Your task to perform on an android device: make emails show in primary in the gmail app Image 0: 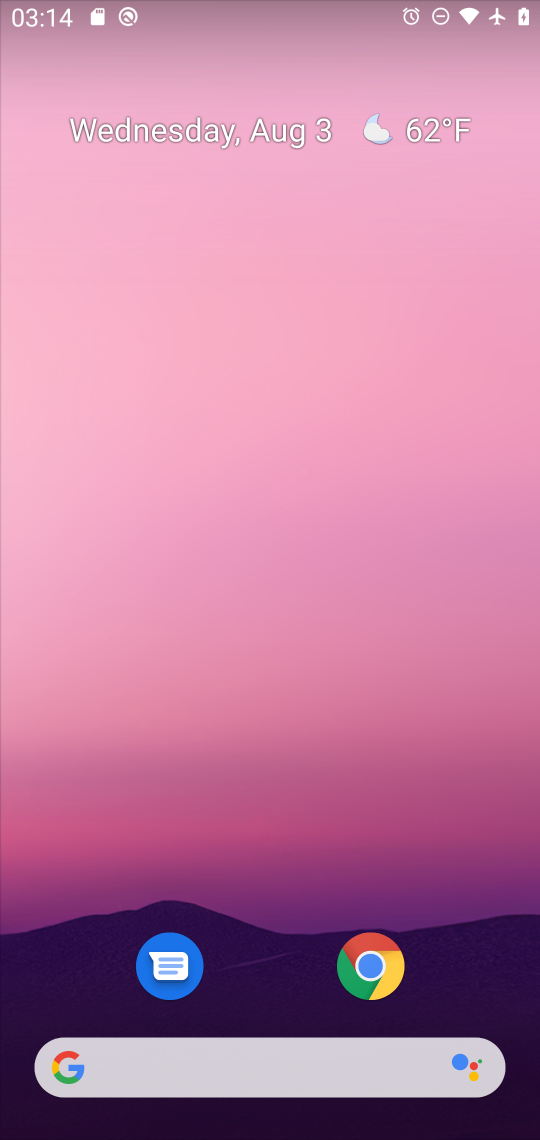
Step 0: drag from (265, 980) to (262, 322)
Your task to perform on an android device: make emails show in primary in the gmail app Image 1: 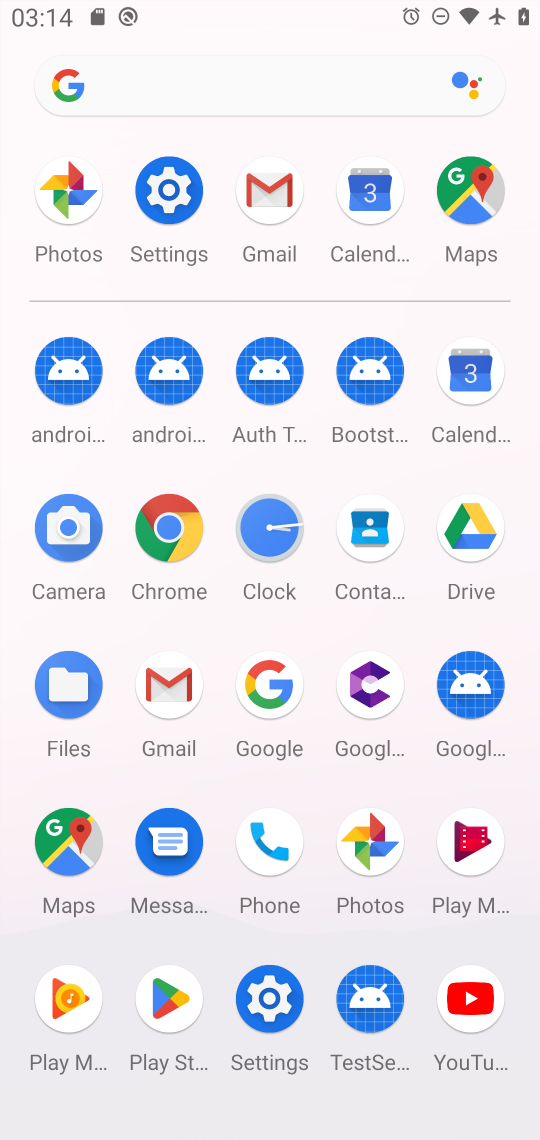
Step 1: click (263, 210)
Your task to perform on an android device: make emails show in primary in the gmail app Image 2: 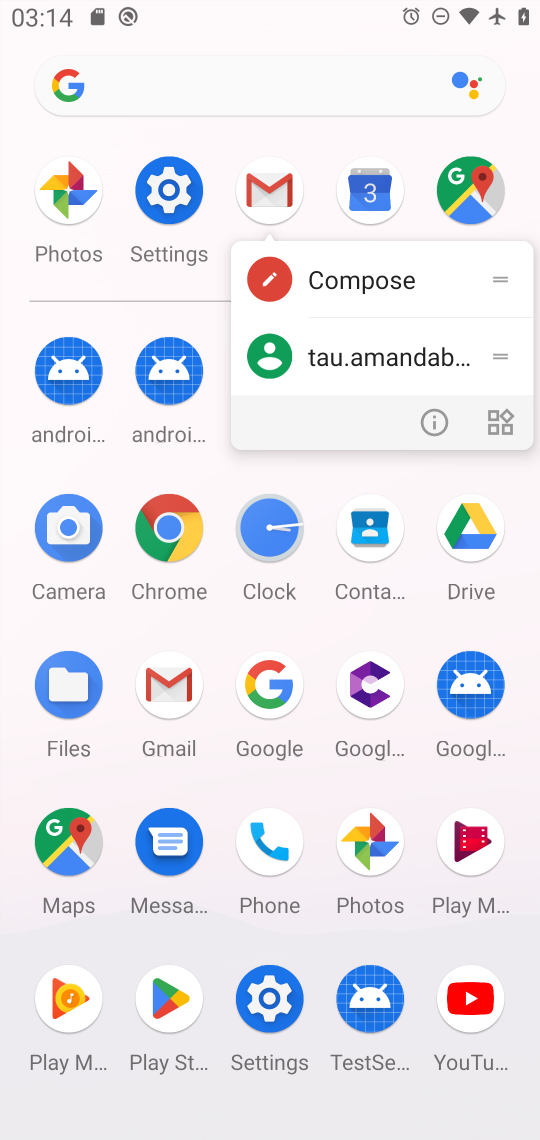
Step 2: click (269, 183)
Your task to perform on an android device: make emails show in primary in the gmail app Image 3: 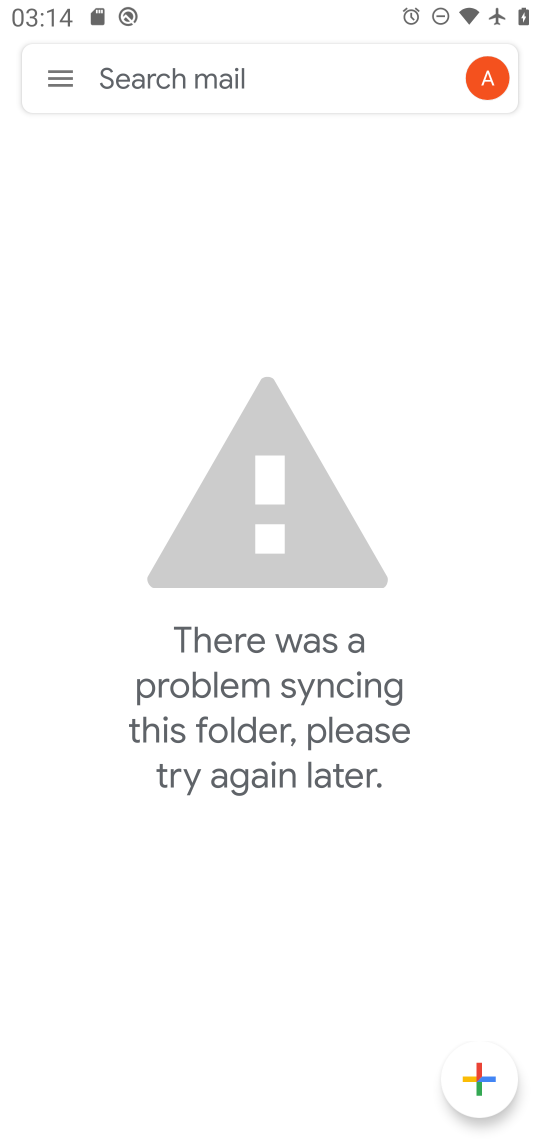
Step 3: click (72, 69)
Your task to perform on an android device: make emails show in primary in the gmail app Image 4: 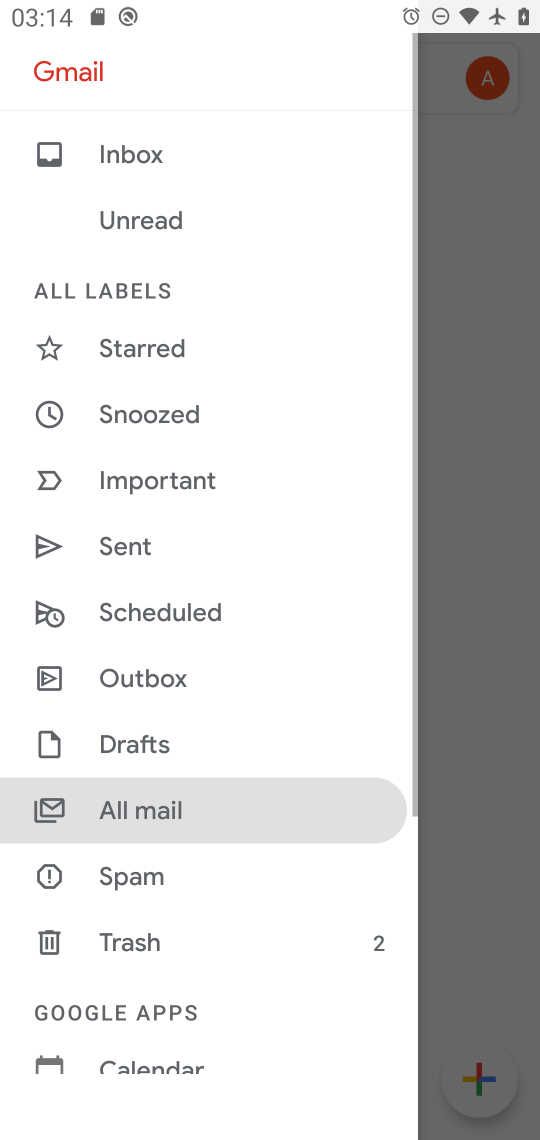
Step 4: drag from (178, 1031) to (210, 494)
Your task to perform on an android device: make emails show in primary in the gmail app Image 5: 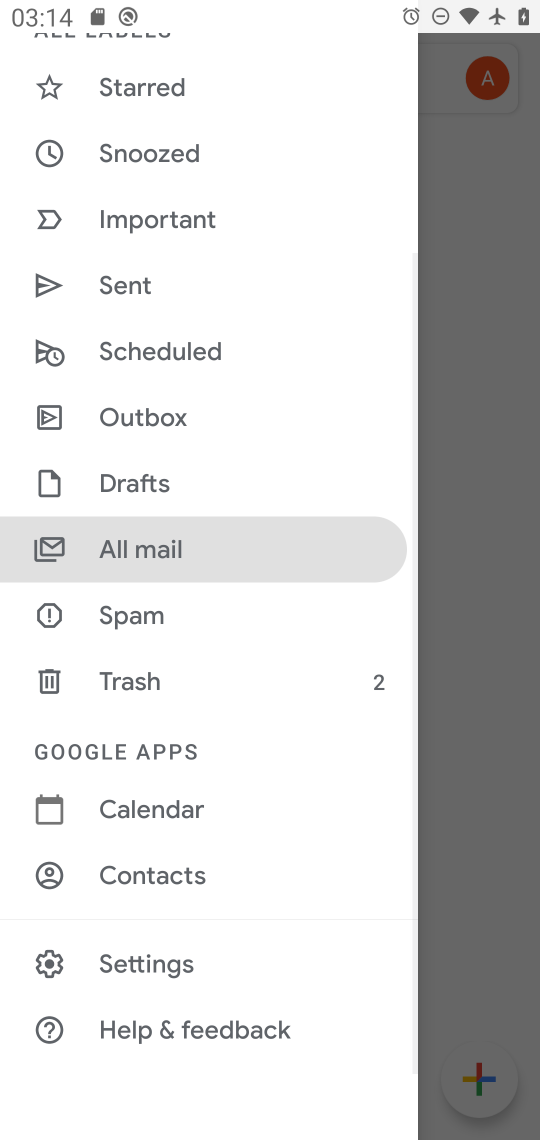
Step 5: click (183, 947)
Your task to perform on an android device: make emails show in primary in the gmail app Image 6: 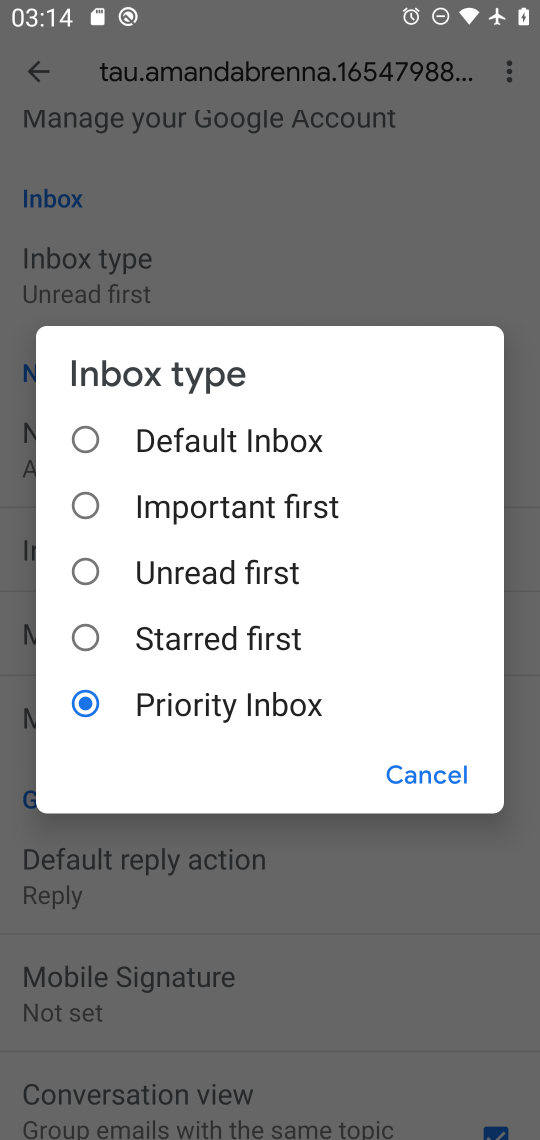
Step 6: click (226, 458)
Your task to perform on an android device: make emails show in primary in the gmail app Image 7: 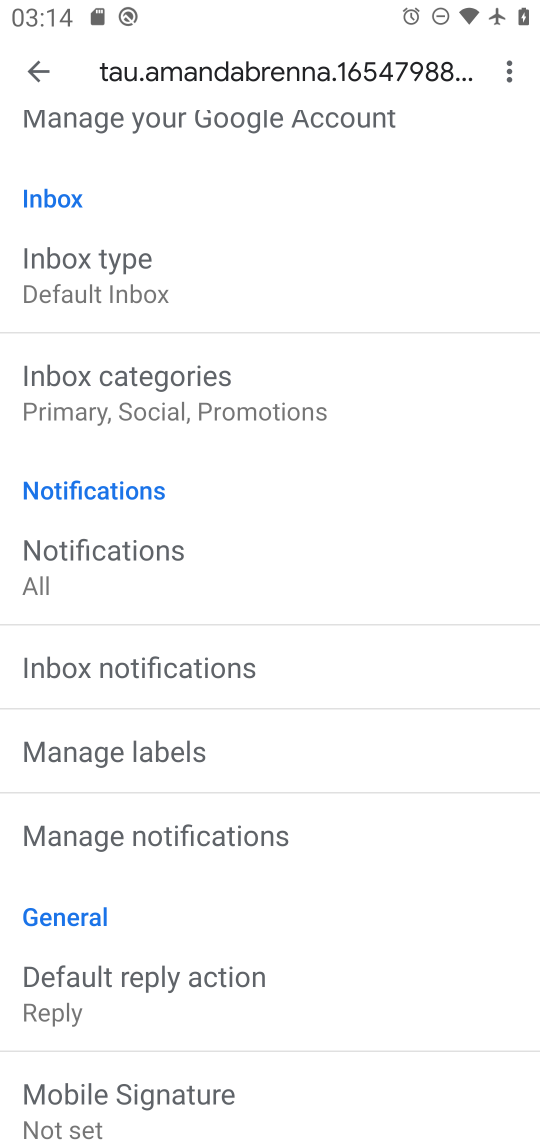
Step 7: click (211, 287)
Your task to perform on an android device: make emails show in primary in the gmail app Image 8: 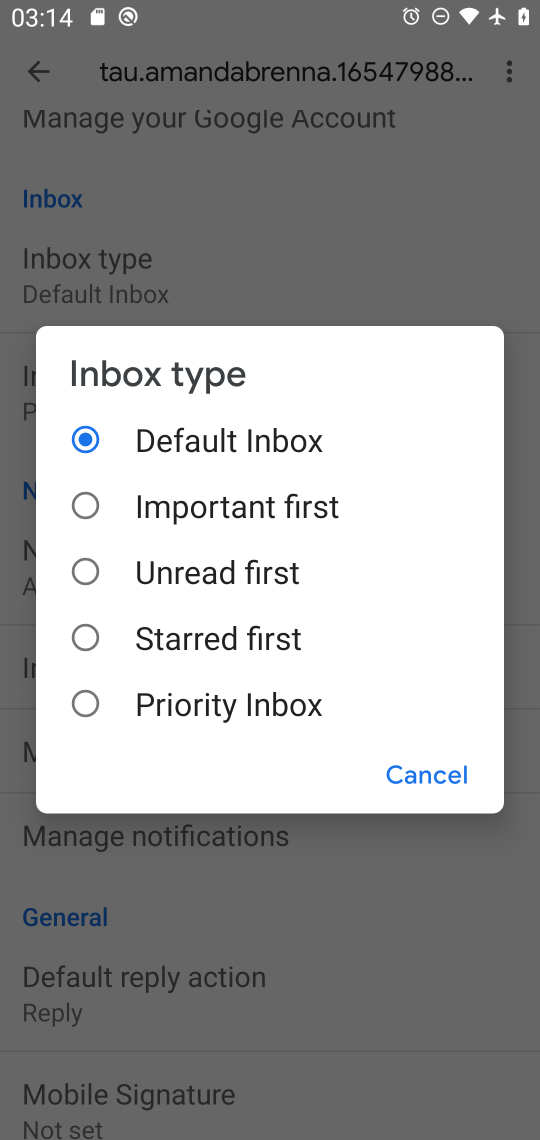
Step 8: click (430, 779)
Your task to perform on an android device: make emails show in primary in the gmail app Image 9: 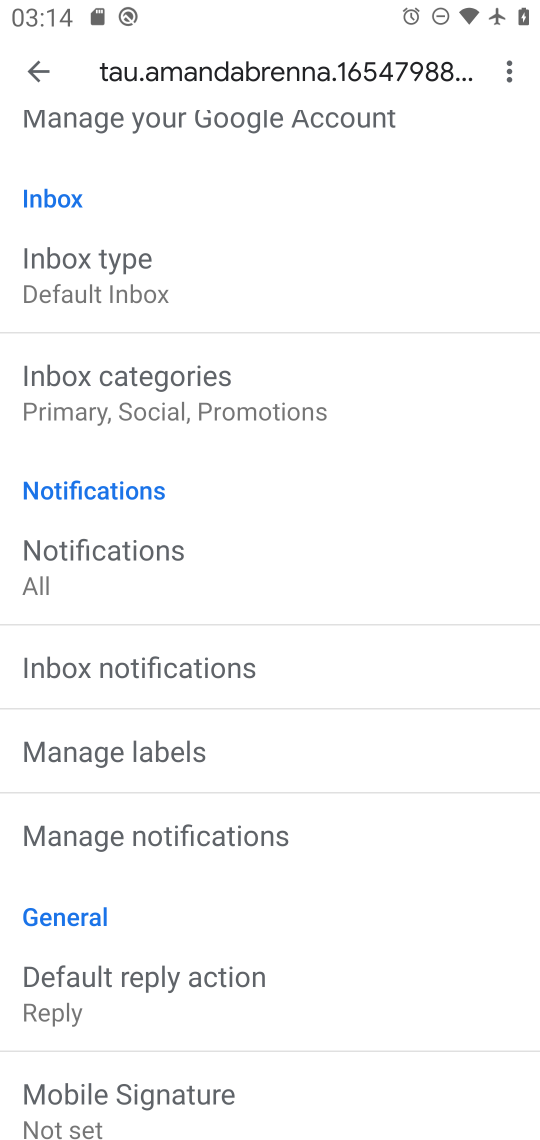
Step 9: task complete